Your task to perform on an android device: turn on javascript in the chrome app Image 0: 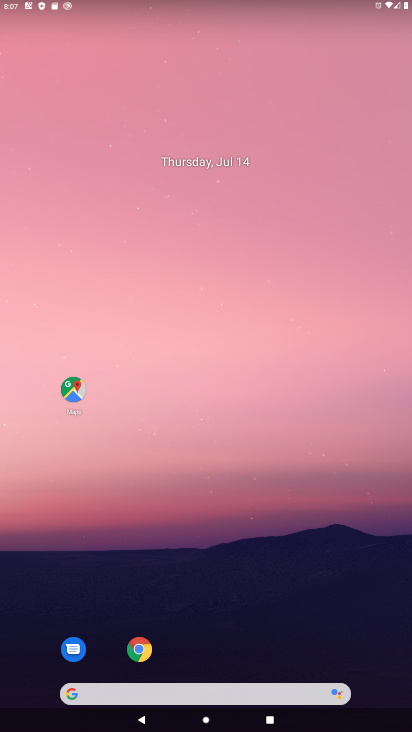
Step 0: press home button
Your task to perform on an android device: turn on javascript in the chrome app Image 1: 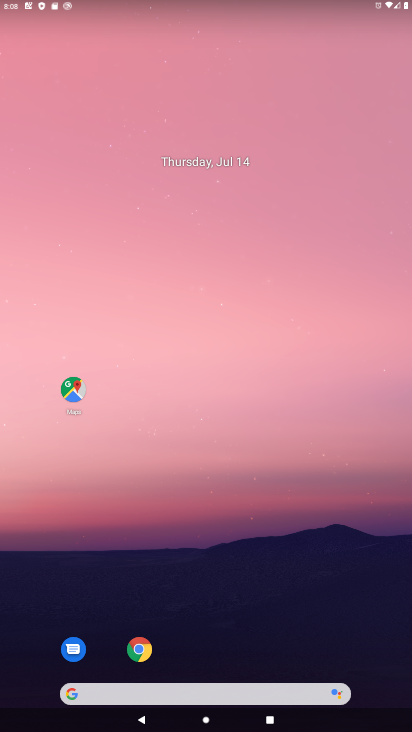
Step 1: click (136, 644)
Your task to perform on an android device: turn on javascript in the chrome app Image 2: 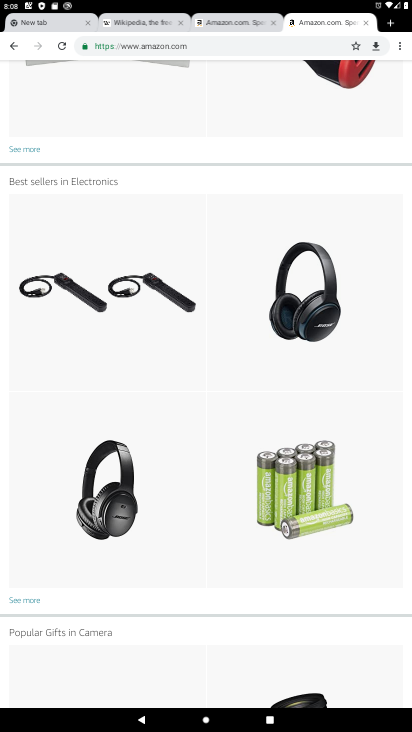
Step 2: click (366, 21)
Your task to perform on an android device: turn on javascript in the chrome app Image 3: 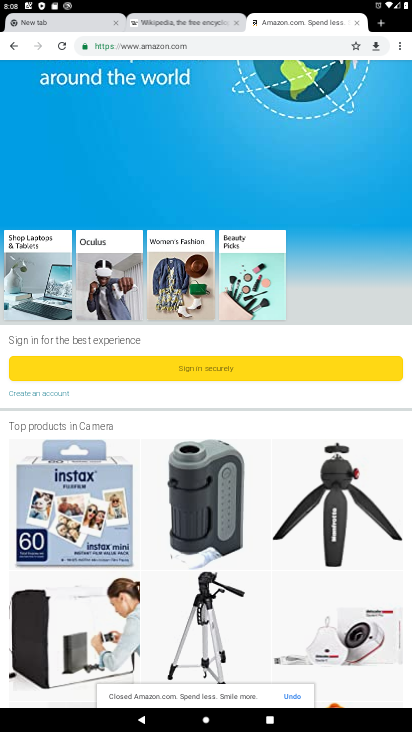
Step 3: click (236, 19)
Your task to perform on an android device: turn on javascript in the chrome app Image 4: 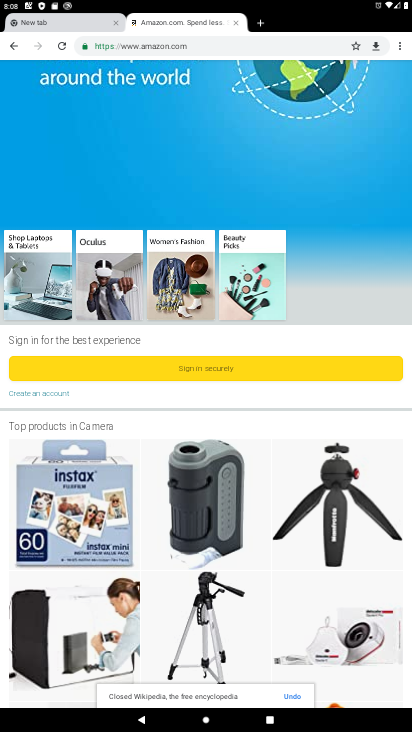
Step 4: click (117, 26)
Your task to perform on an android device: turn on javascript in the chrome app Image 5: 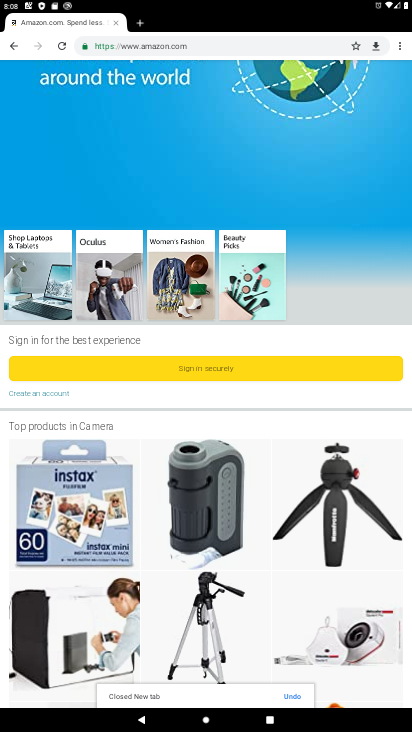
Step 5: click (139, 24)
Your task to perform on an android device: turn on javascript in the chrome app Image 6: 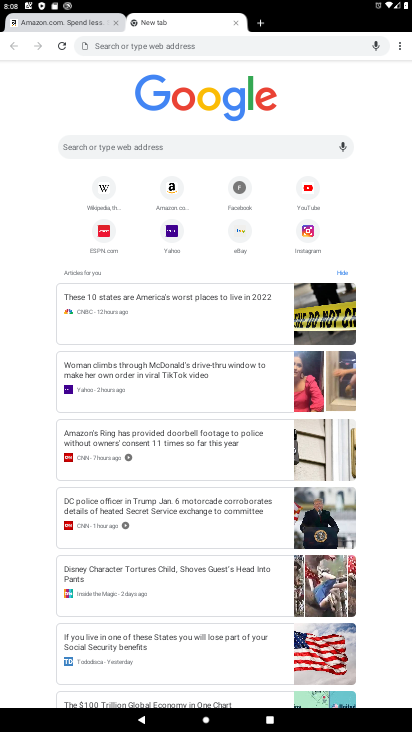
Step 6: click (399, 49)
Your task to perform on an android device: turn on javascript in the chrome app Image 7: 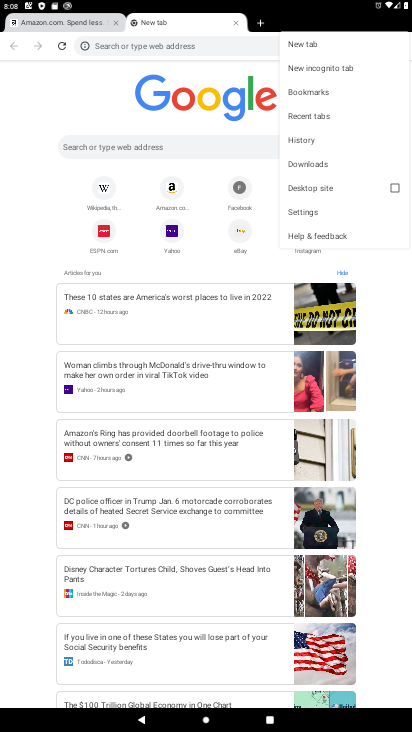
Step 7: click (319, 211)
Your task to perform on an android device: turn on javascript in the chrome app Image 8: 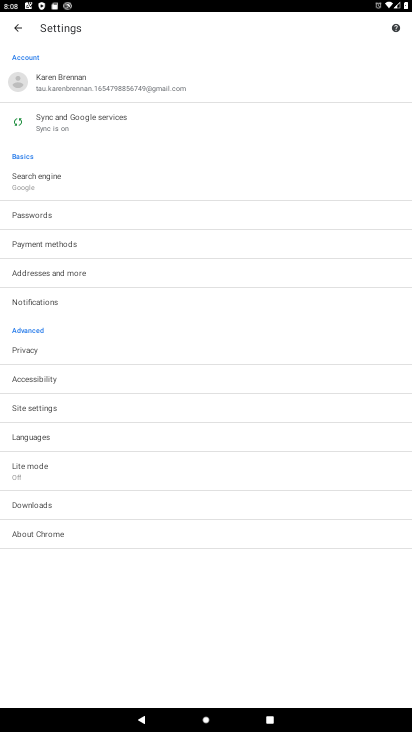
Step 8: click (71, 408)
Your task to perform on an android device: turn on javascript in the chrome app Image 9: 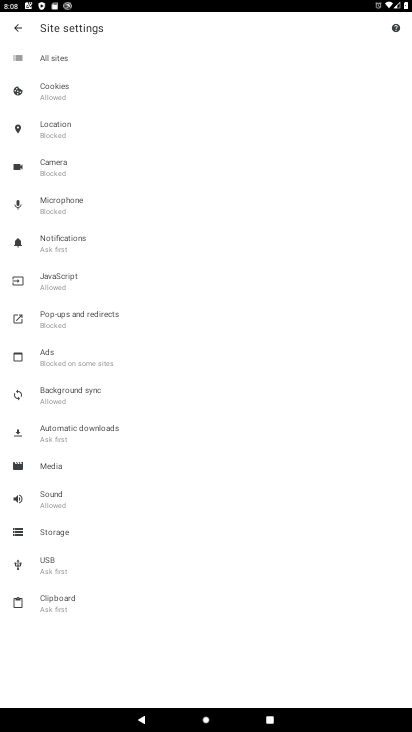
Step 9: click (81, 283)
Your task to perform on an android device: turn on javascript in the chrome app Image 10: 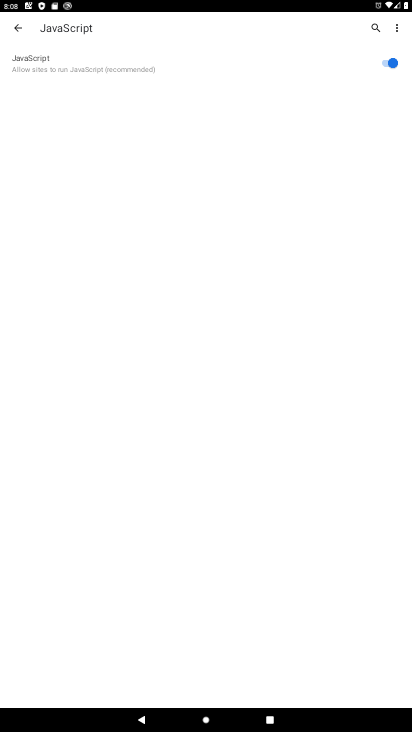
Step 10: task complete